Your task to perform on an android device: empty trash in the gmail app Image 0: 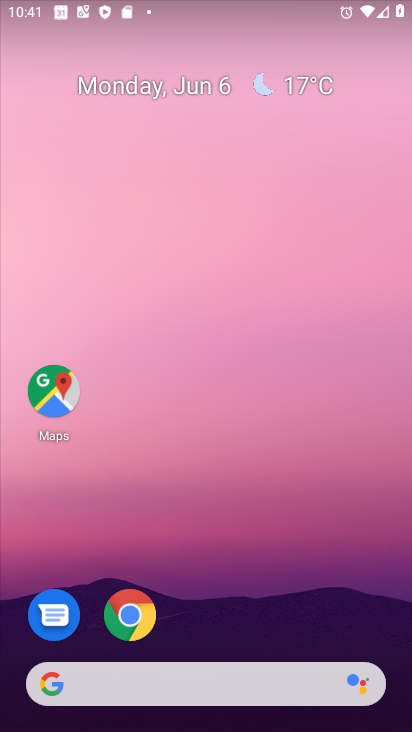
Step 0: press home button
Your task to perform on an android device: empty trash in the gmail app Image 1: 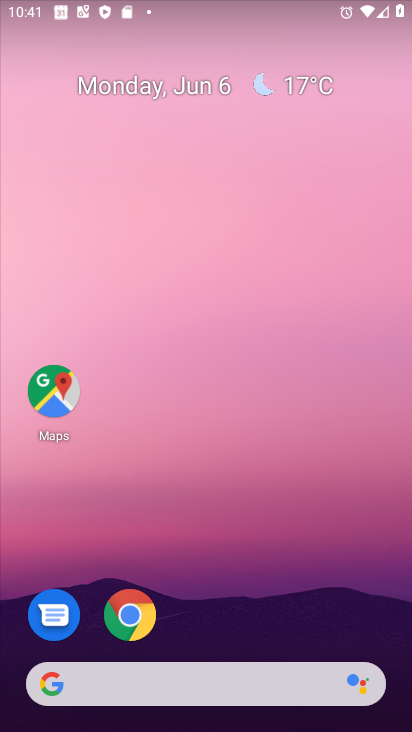
Step 1: press home button
Your task to perform on an android device: empty trash in the gmail app Image 2: 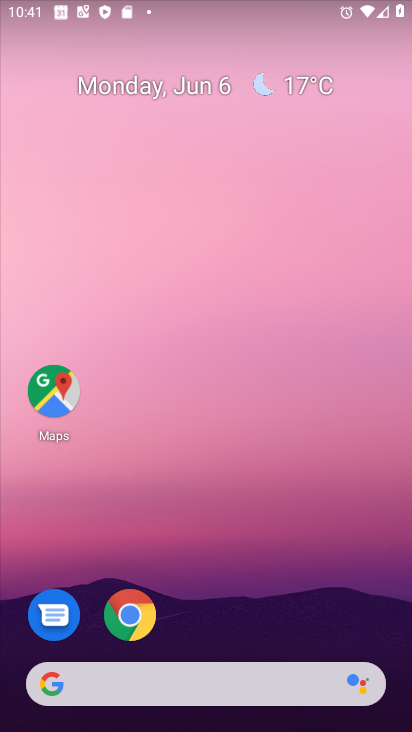
Step 2: drag from (217, 638) to (222, 57)
Your task to perform on an android device: empty trash in the gmail app Image 3: 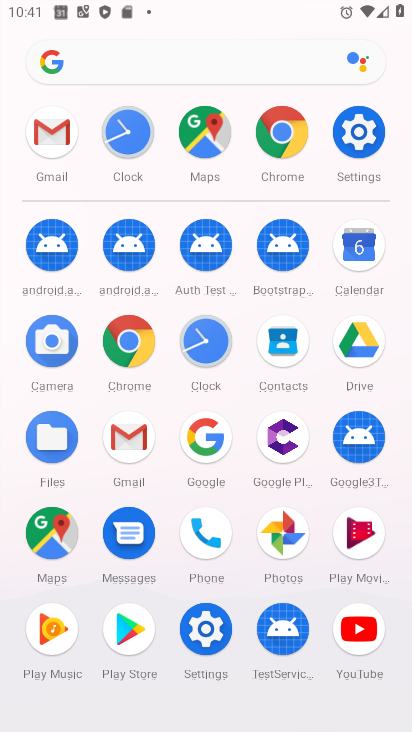
Step 3: click (48, 120)
Your task to perform on an android device: empty trash in the gmail app Image 4: 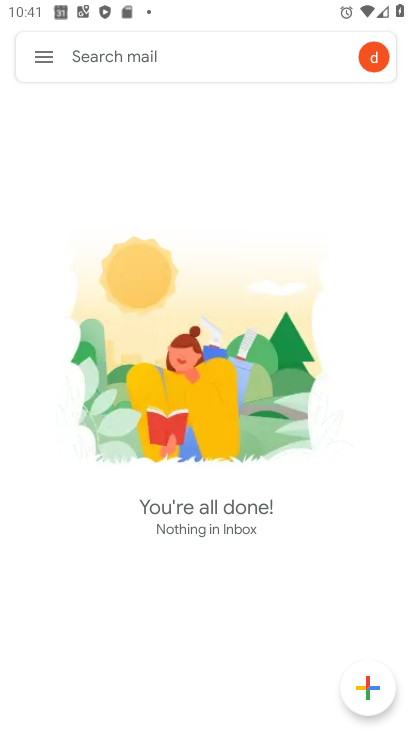
Step 4: click (36, 47)
Your task to perform on an android device: empty trash in the gmail app Image 5: 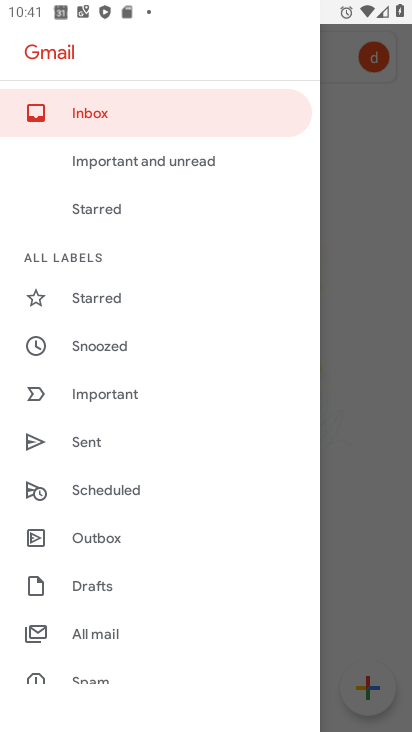
Step 5: drag from (136, 643) to (146, 188)
Your task to perform on an android device: empty trash in the gmail app Image 6: 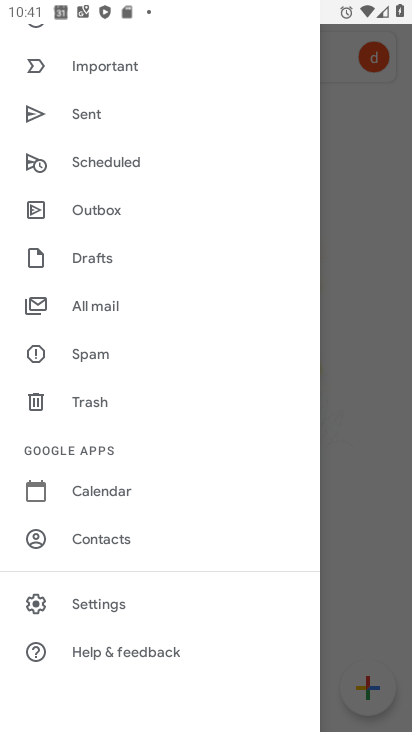
Step 6: click (116, 397)
Your task to perform on an android device: empty trash in the gmail app Image 7: 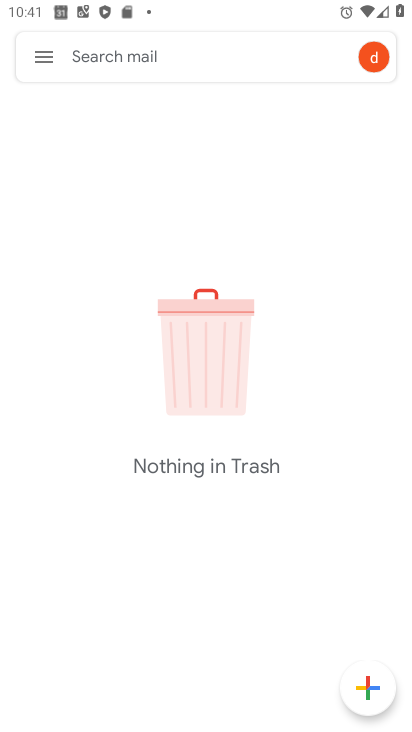
Step 7: task complete